Your task to perform on an android device: Open Google Chrome Image 0: 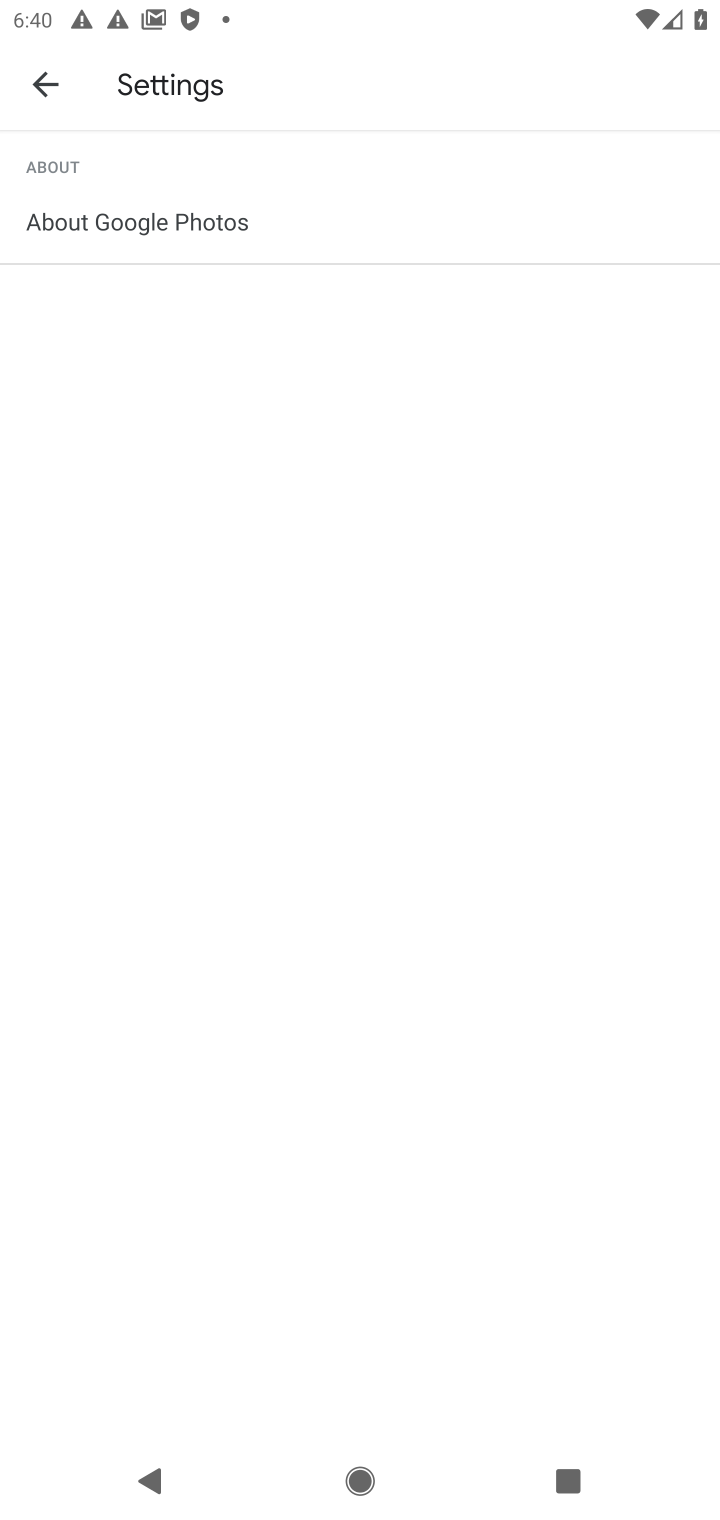
Step 0: press home button
Your task to perform on an android device: Open Google Chrome Image 1: 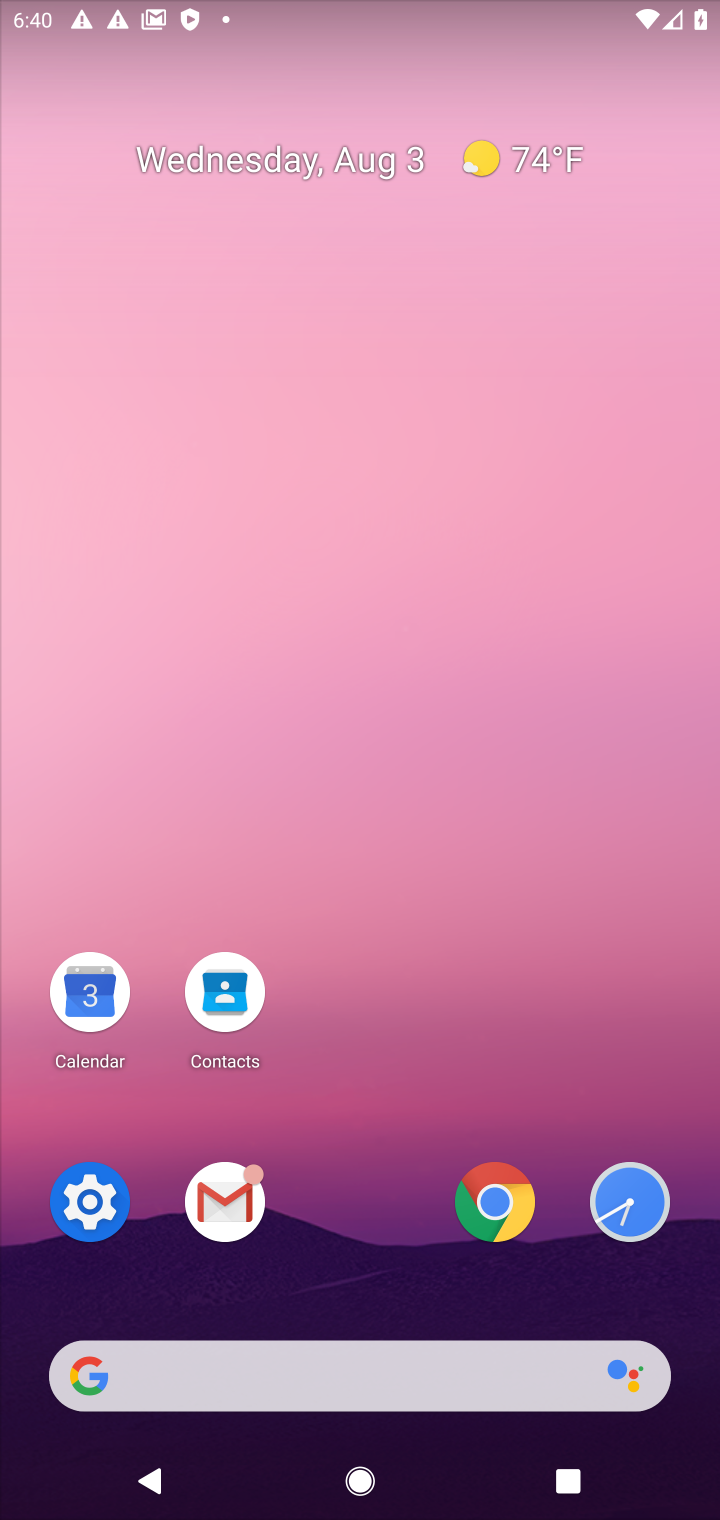
Step 1: click (496, 1206)
Your task to perform on an android device: Open Google Chrome Image 2: 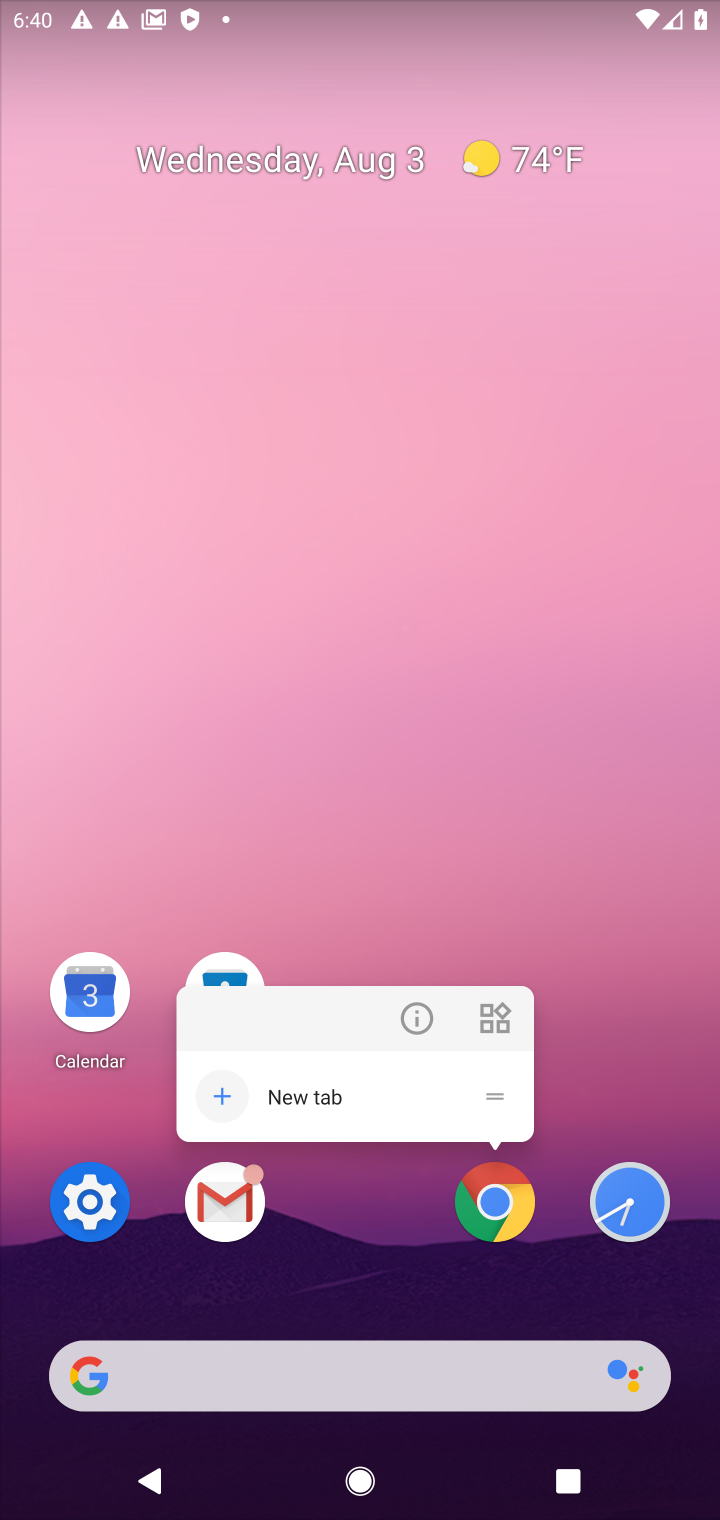
Step 2: click (496, 1206)
Your task to perform on an android device: Open Google Chrome Image 3: 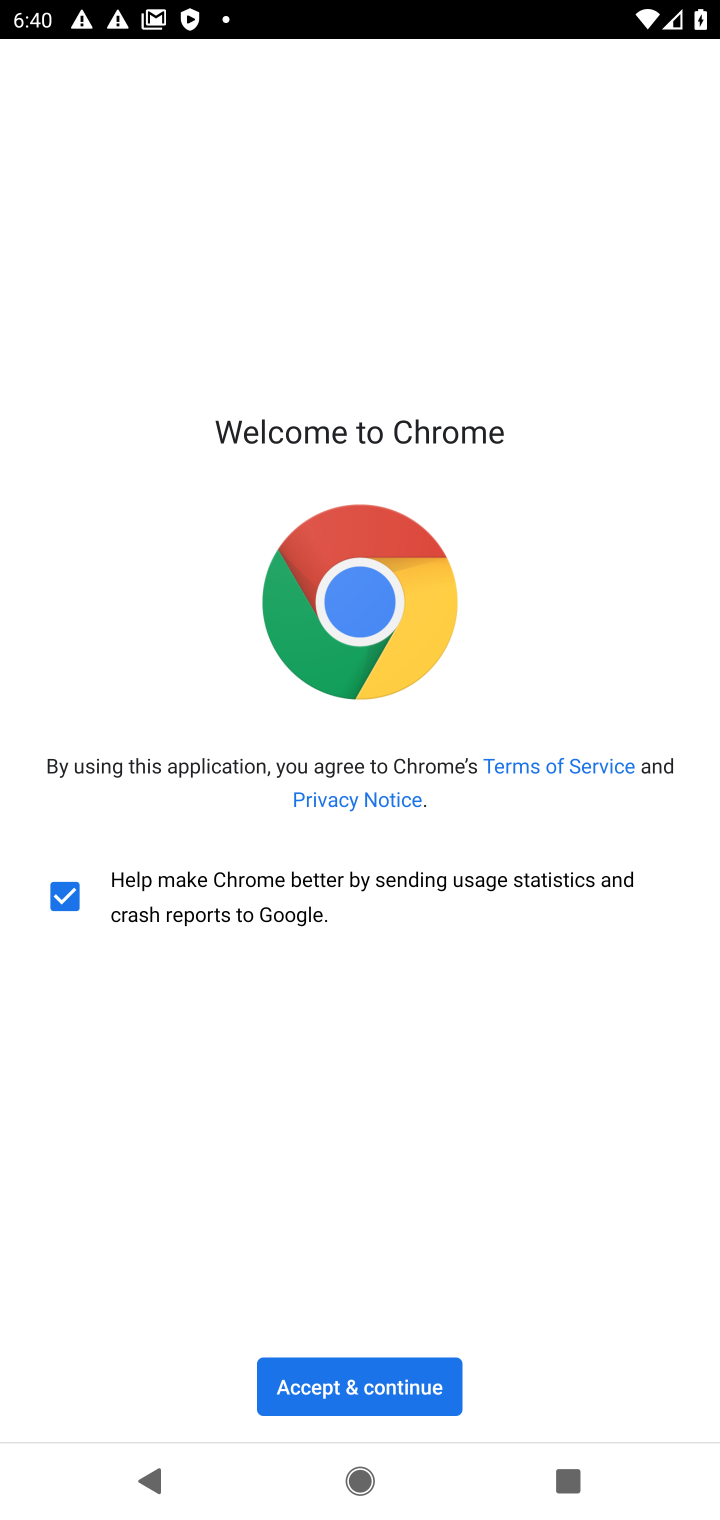
Step 3: click (339, 1388)
Your task to perform on an android device: Open Google Chrome Image 4: 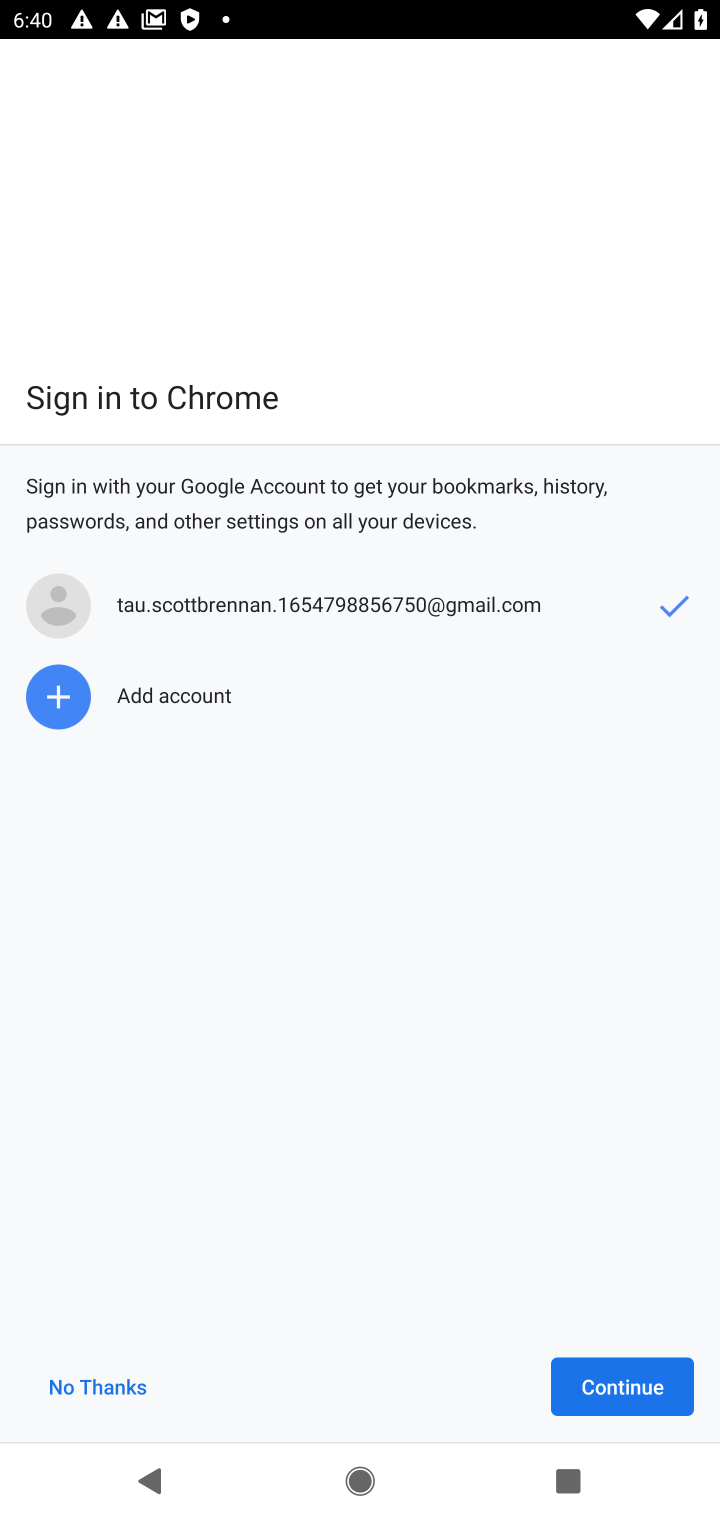
Step 4: click (642, 1379)
Your task to perform on an android device: Open Google Chrome Image 5: 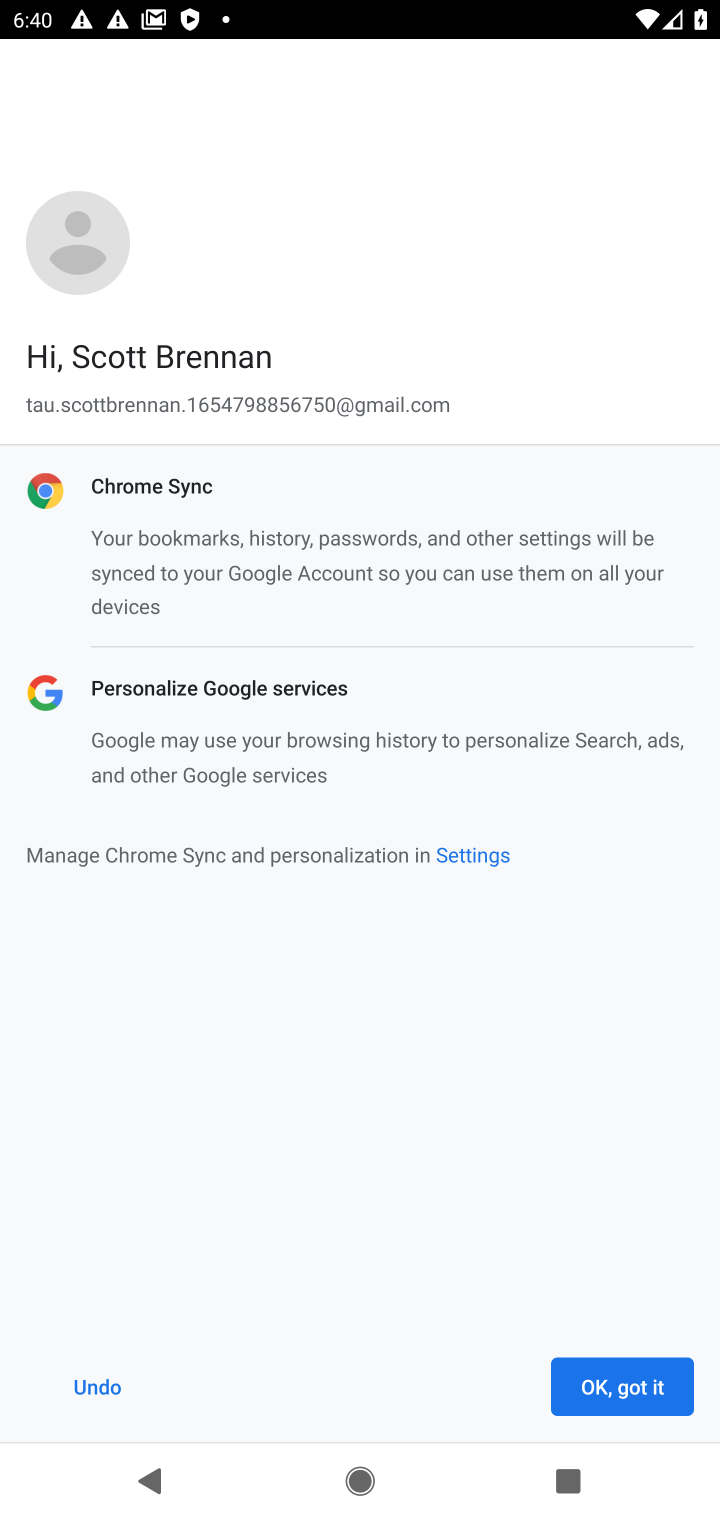
Step 5: click (642, 1379)
Your task to perform on an android device: Open Google Chrome Image 6: 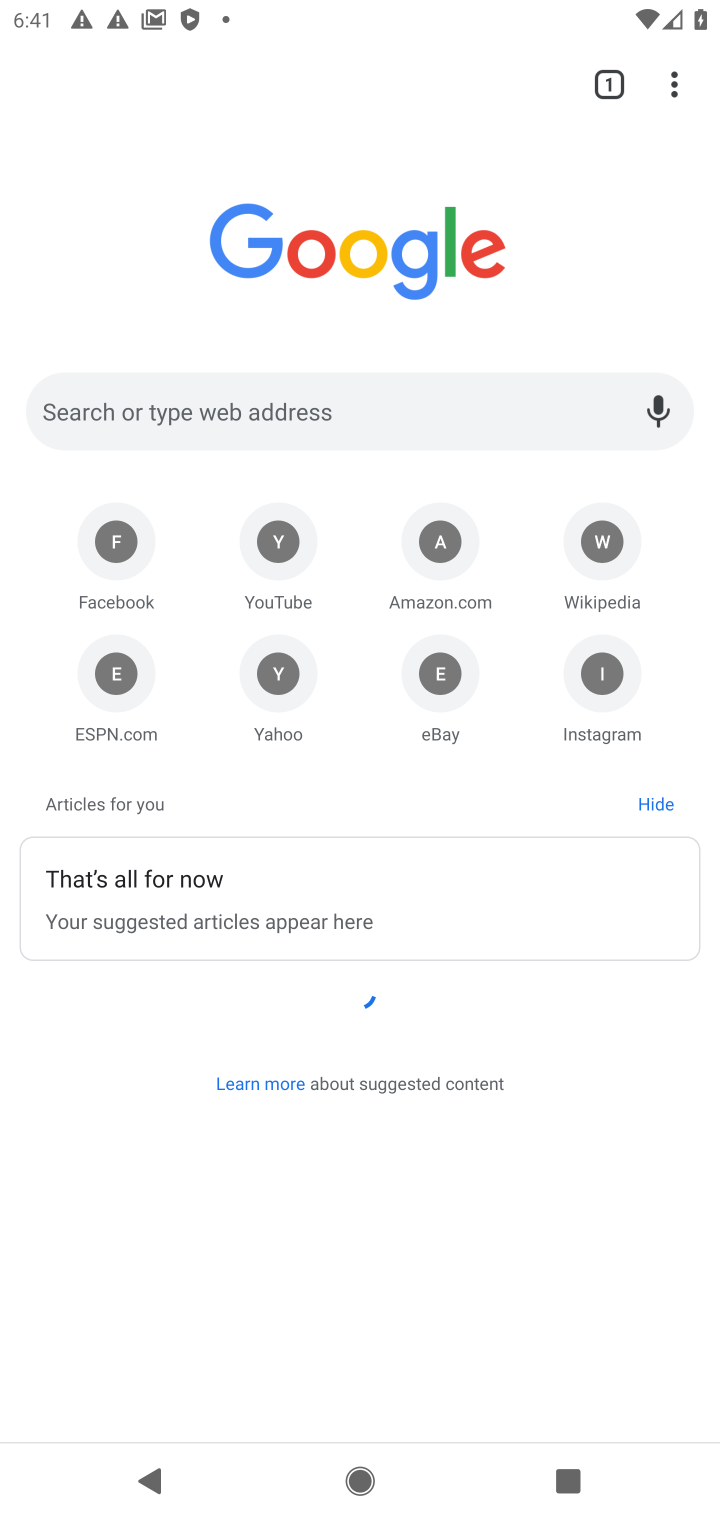
Step 6: task complete